Your task to perform on an android device: Go to network settings Image 0: 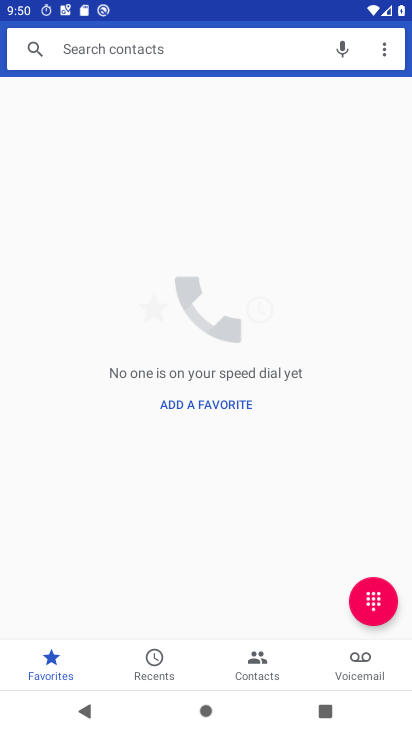
Step 0: press home button
Your task to perform on an android device: Go to network settings Image 1: 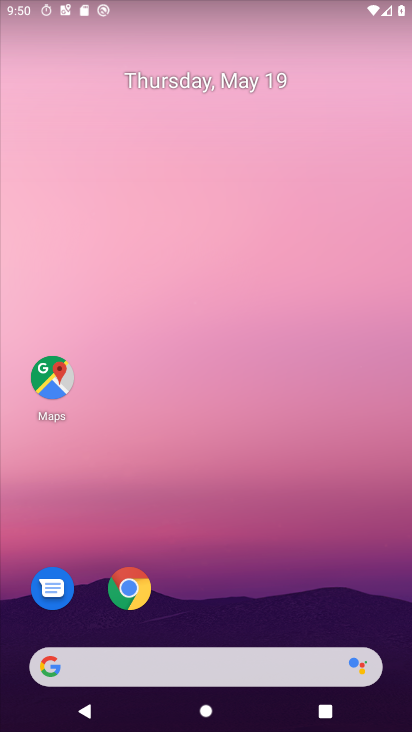
Step 1: drag from (133, 664) to (270, 236)
Your task to perform on an android device: Go to network settings Image 2: 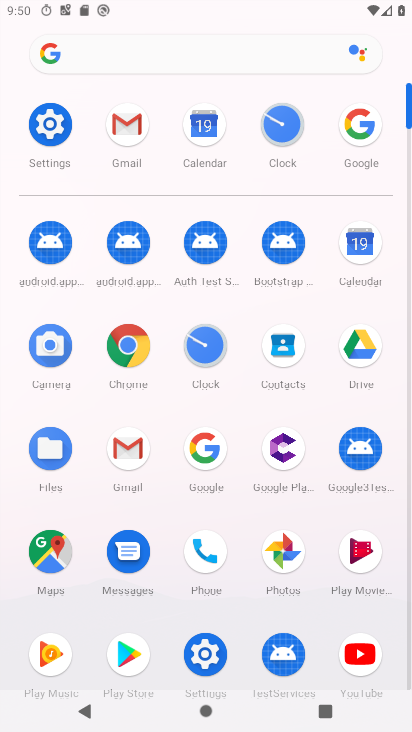
Step 2: click (53, 130)
Your task to perform on an android device: Go to network settings Image 3: 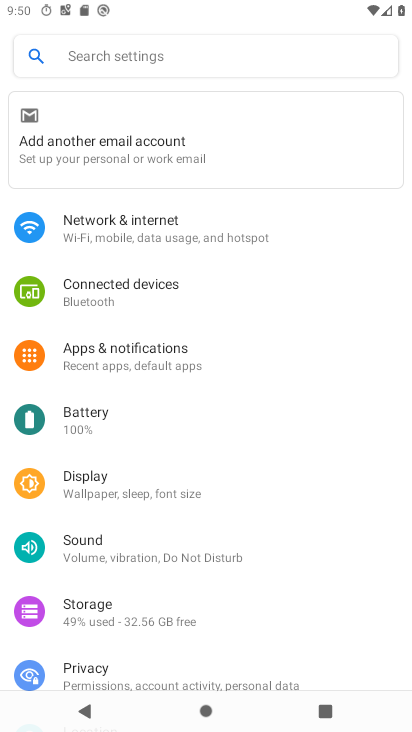
Step 3: click (141, 228)
Your task to perform on an android device: Go to network settings Image 4: 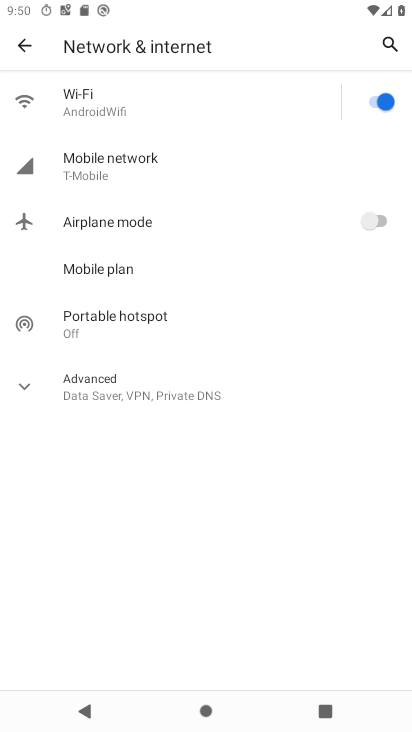
Step 4: task complete